Your task to perform on an android device: turn on airplane mode Image 0: 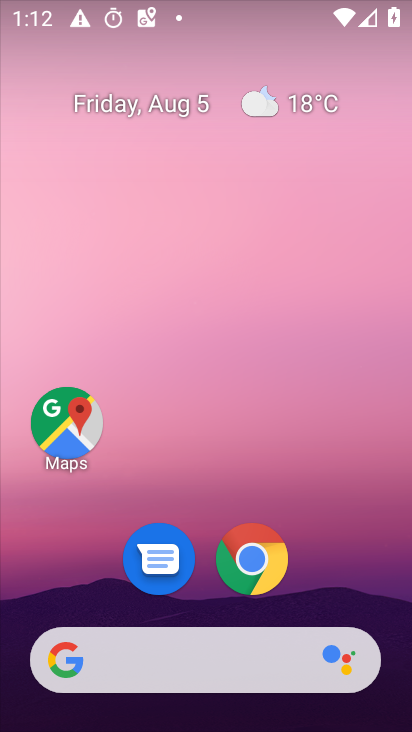
Step 0: drag from (38, 698) to (202, 288)
Your task to perform on an android device: turn on airplane mode Image 1: 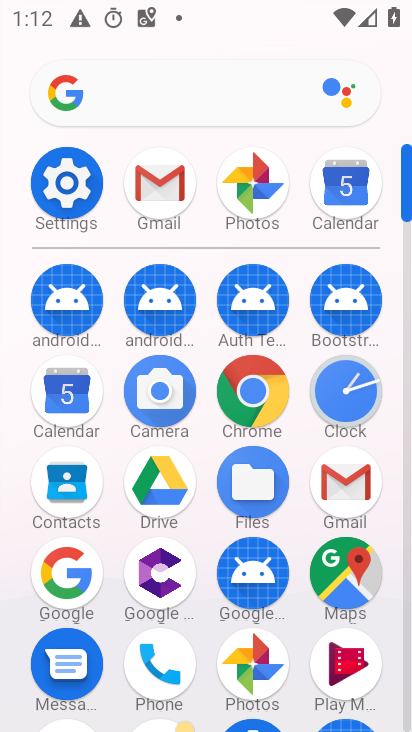
Step 1: click (92, 187)
Your task to perform on an android device: turn on airplane mode Image 2: 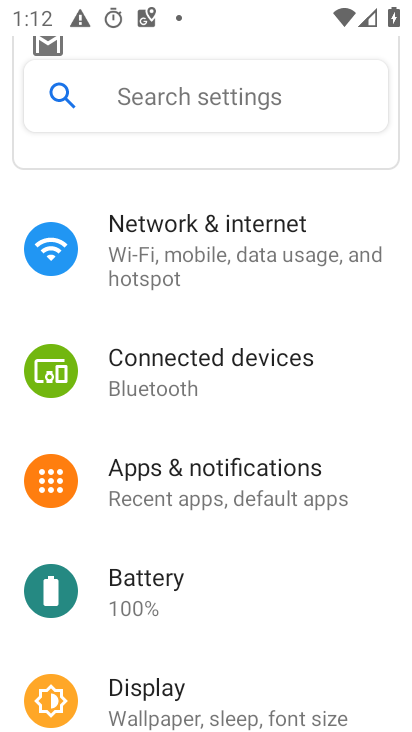
Step 2: click (169, 271)
Your task to perform on an android device: turn on airplane mode Image 3: 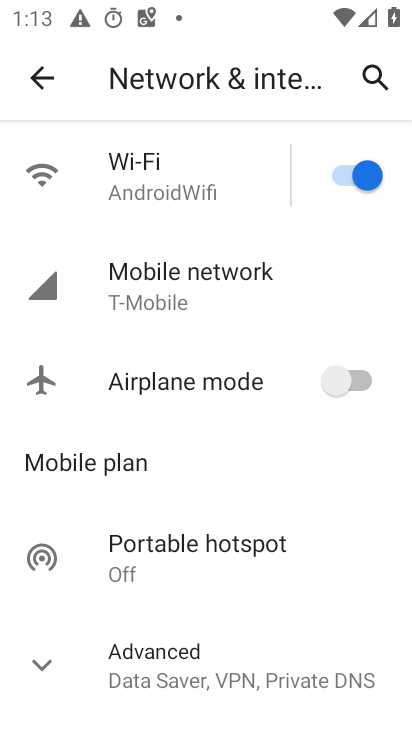
Step 3: click (344, 366)
Your task to perform on an android device: turn on airplane mode Image 4: 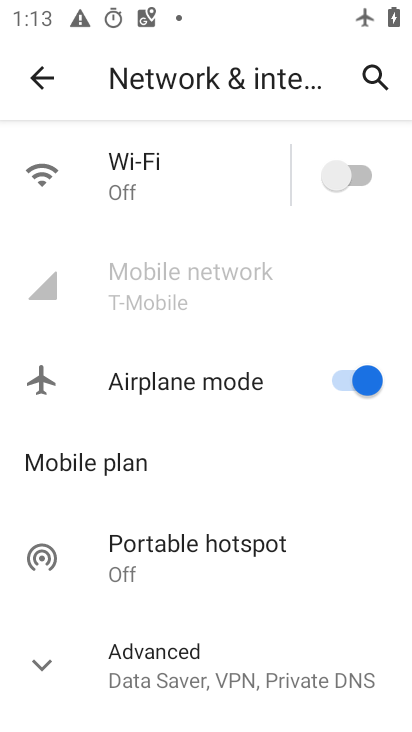
Step 4: task complete